Your task to perform on an android device: Open Yahoo.com Image 0: 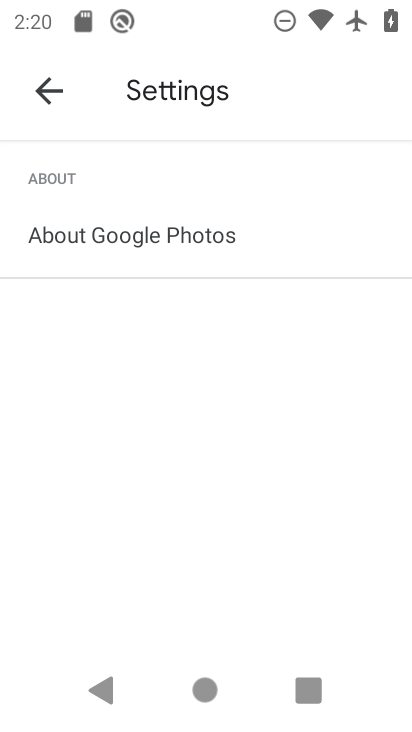
Step 0: press home button
Your task to perform on an android device: Open Yahoo.com Image 1: 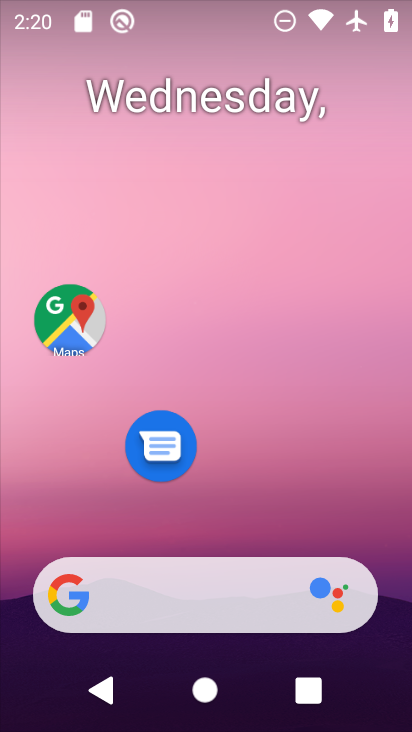
Step 1: drag from (376, 505) to (210, 98)
Your task to perform on an android device: Open Yahoo.com Image 2: 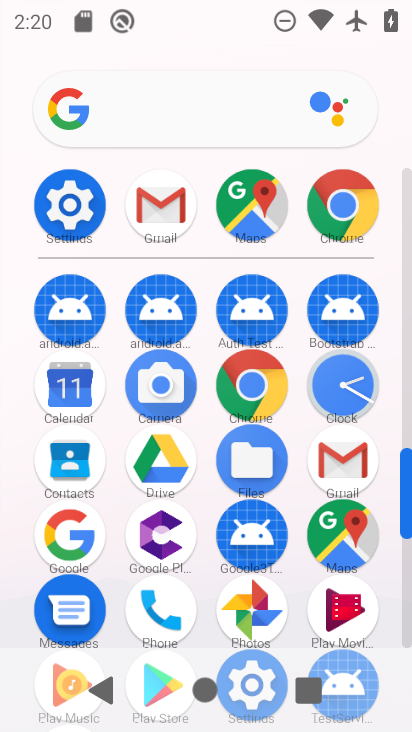
Step 2: click (259, 395)
Your task to perform on an android device: Open Yahoo.com Image 3: 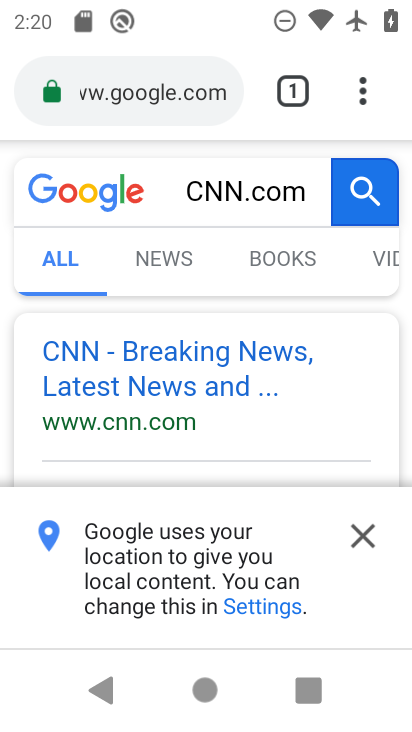
Step 3: click (182, 87)
Your task to perform on an android device: Open Yahoo.com Image 4: 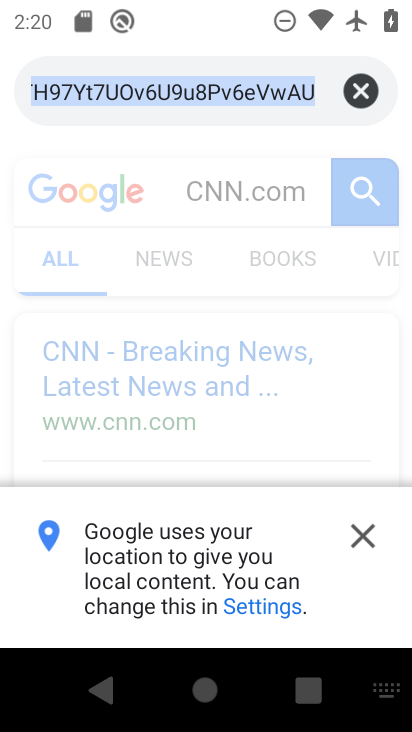
Step 4: type "yahoo.com"
Your task to perform on an android device: Open Yahoo.com Image 5: 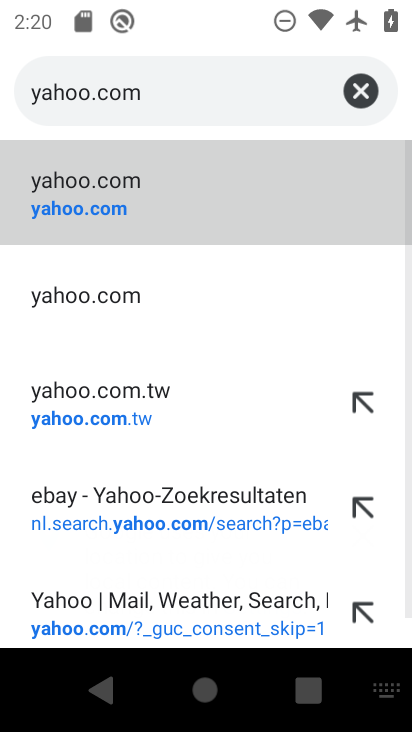
Step 5: click (267, 224)
Your task to perform on an android device: Open Yahoo.com Image 6: 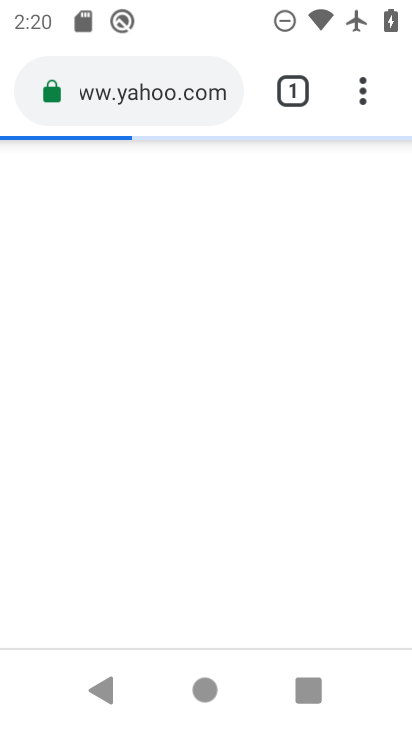
Step 6: task complete